Your task to perform on an android device: snooze an email in the gmail app Image 0: 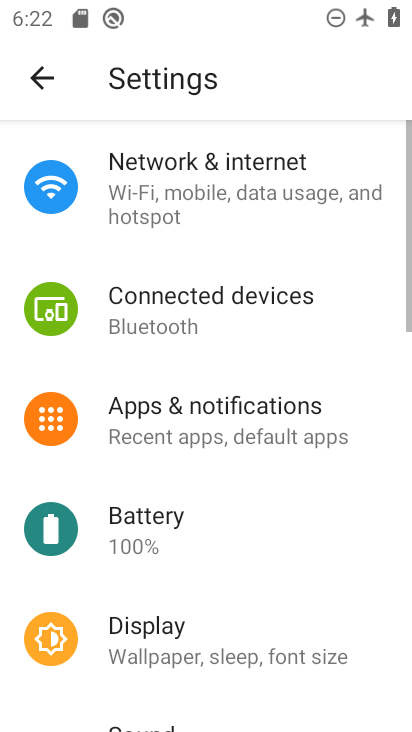
Step 0: press home button
Your task to perform on an android device: snooze an email in the gmail app Image 1: 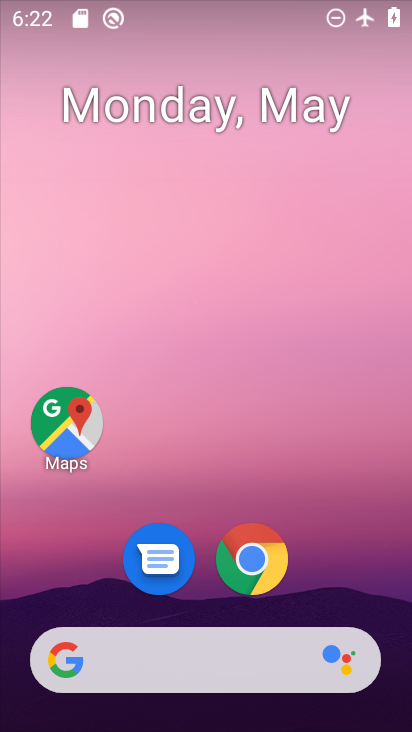
Step 1: drag from (336, 514) to (103, 5)
Your task to perform on an android device: snooze an email in the gmail app Image 2: 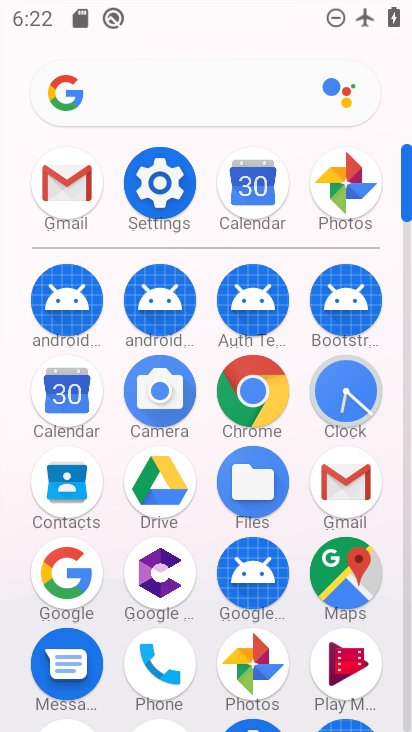
Step 2: click (71, 181)
Your task to perform on an android device: snooze an email in the gmail app Image 3: 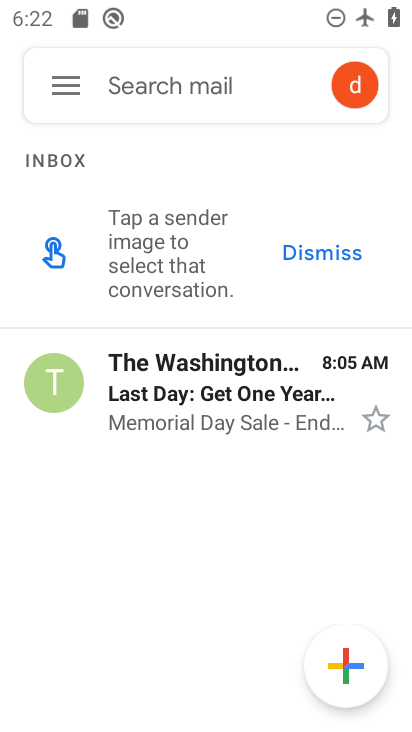
Step 3: click (228, 393)
Your task to perform on an android device: snooze an email in the gmail app Image 4: 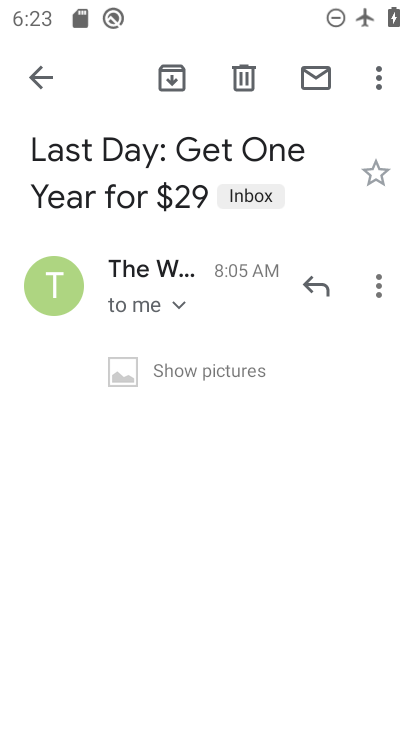
Step 4: click (381, 75)
Your task to perform on an android device: snooze an email in the gmail app Image 5: 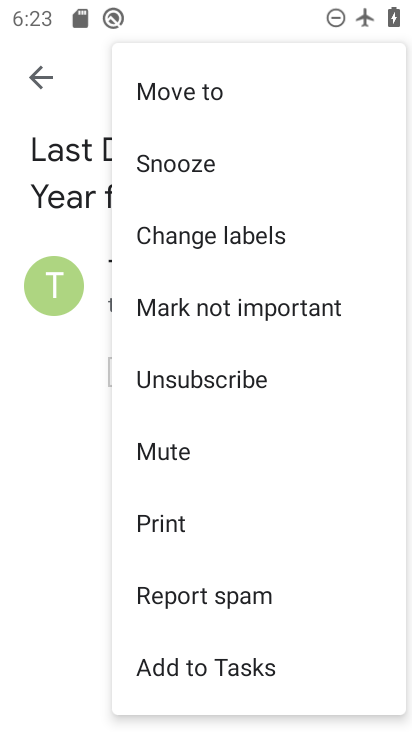
Step 5: click (176, 165)
Your task to perform on an android device: snooze an email in the gmail app Image 6: 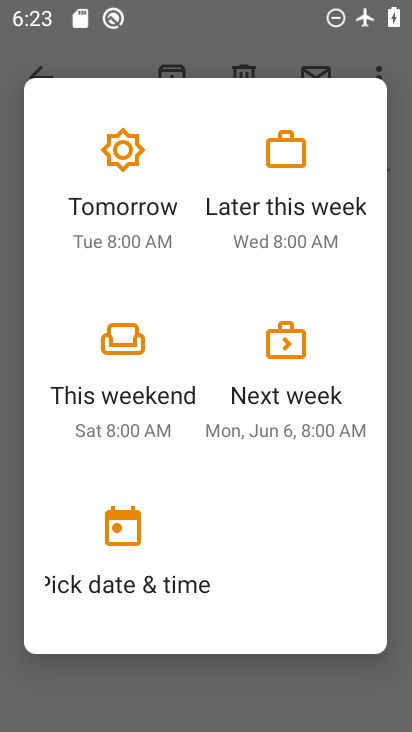
Step 6: click (103, 180)
Your task to perform on an android device: snooze an email in the gmail app Image 7: 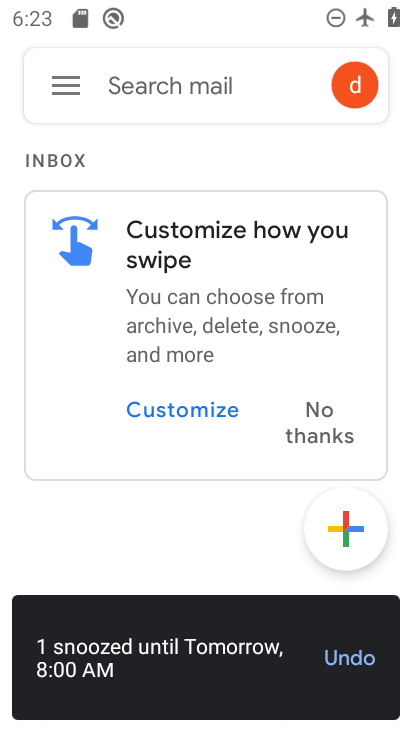
Step 7: task complete